Your task to perform on an android device: Open the web browser Image 0: 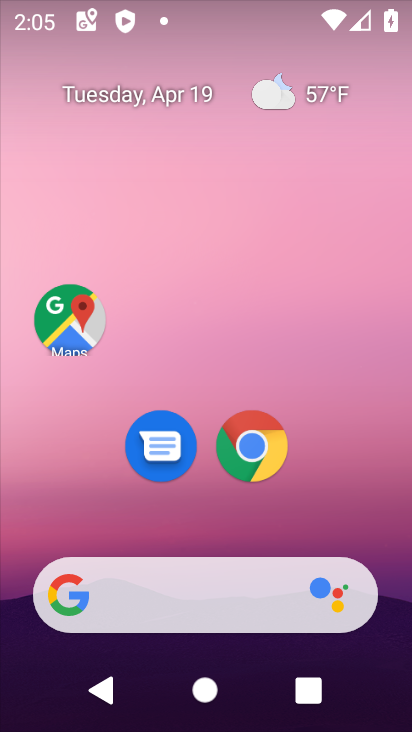
Step 0: drag from (345, 352) to (306, 75)
Your task to perform on an android device: Open the web browser Image 1: 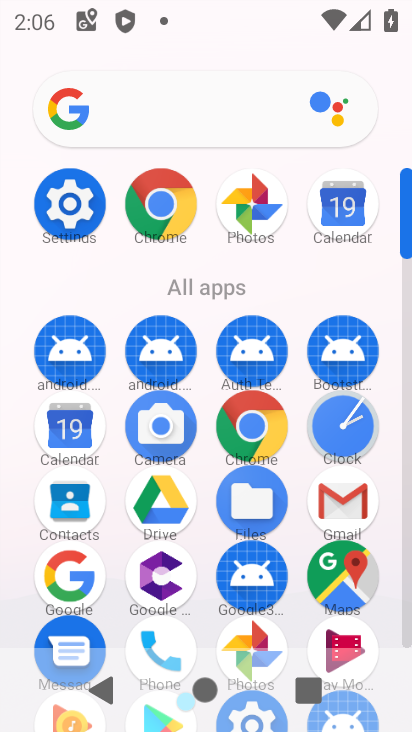
Step 1: click (159, 204)
Your task to perform on an android device: Open the web browser Image 2: 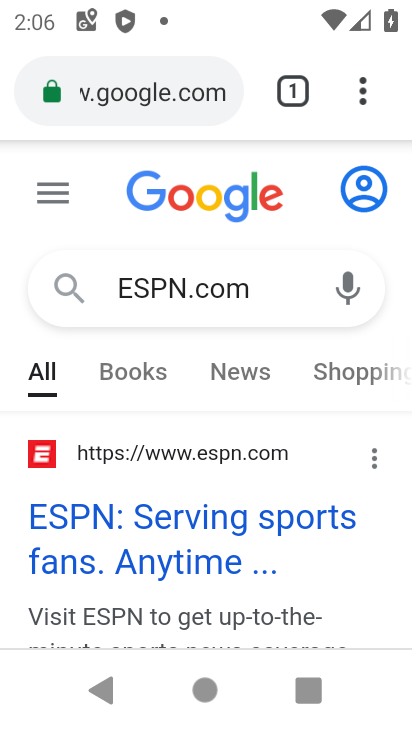
Step 2: task complete